Your task to perform on an android device: search for starred emails in the gmail app Image 0: 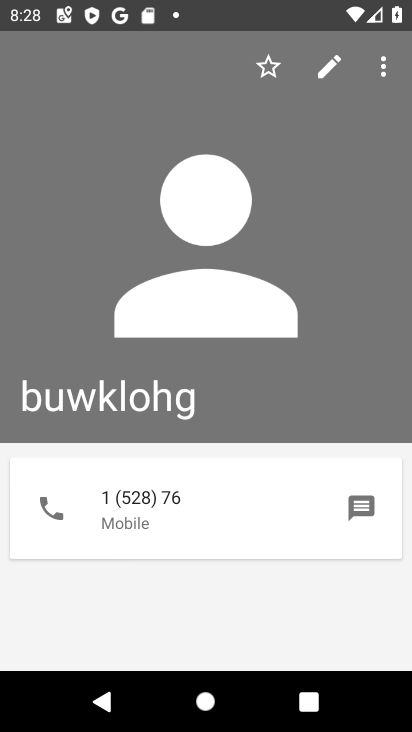
Step 0: press home button
Your task to perform on an android device: search for starred emails in the gmail app Image 1: 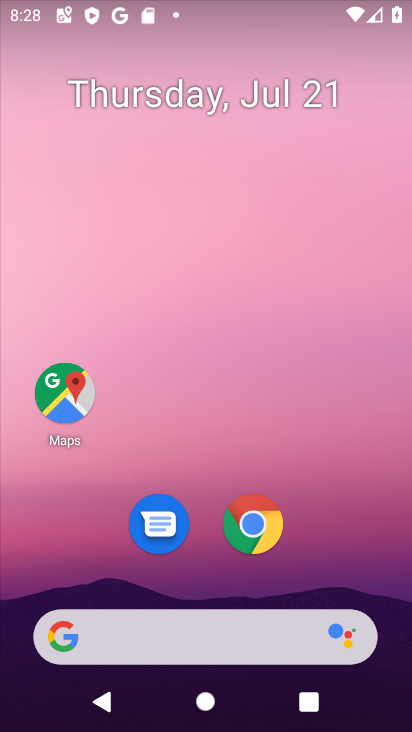
Step 1: drag from (211, 621) to (283, 112)
Your task to perform on an android device: search for starred emails in the gmail app Image 2: 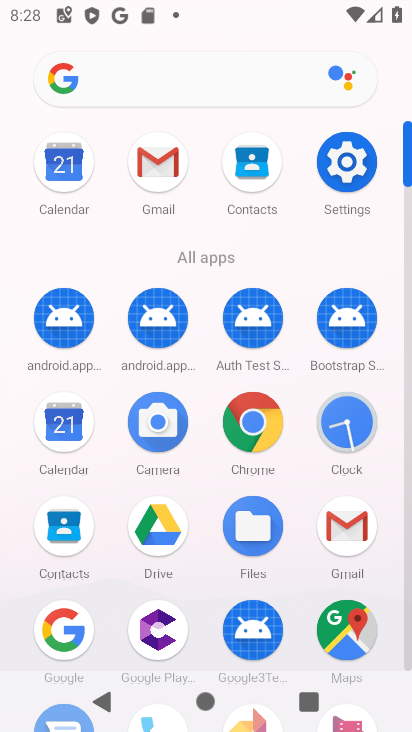
Step 2: click (148, 165)
Your task to perform on an android device: search for starred emails in the gmail app Image 3: 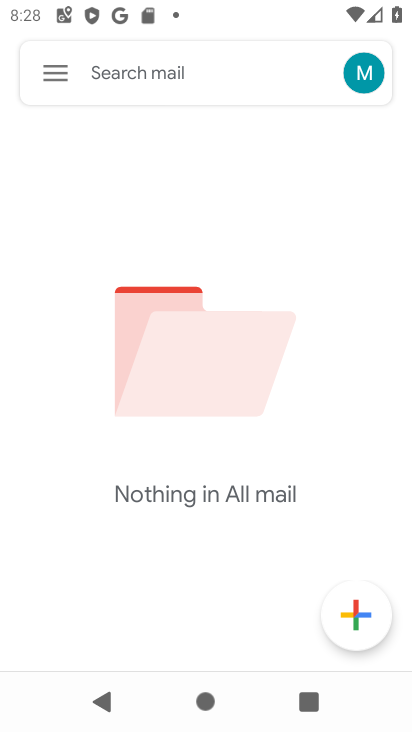
Step 3: click (48, 75)
Your task to perform on an android device: search for starred emails in the gmail app Image 4: 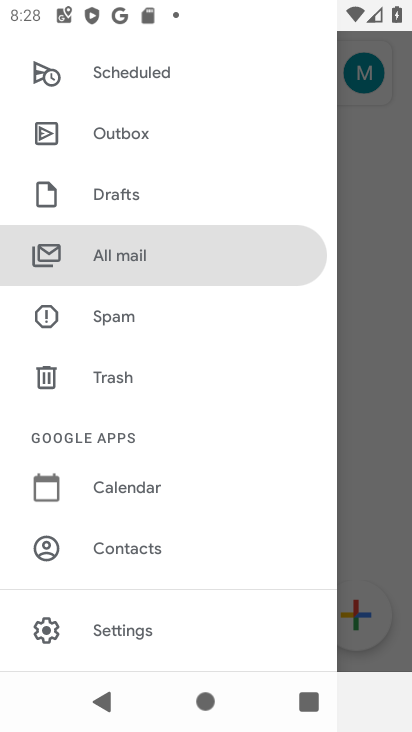
Step 4: drag from (224, 103) to (207, 482)
Your task to perform on an android device: search for starred emails in the gmail app Image 5: 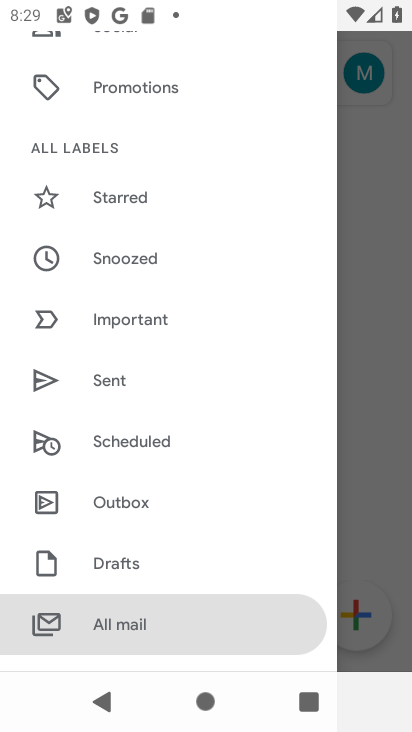
Step 5: click (140, 204)
Your task to perform on an android device: search for starred emails in the gmail app Image 6: 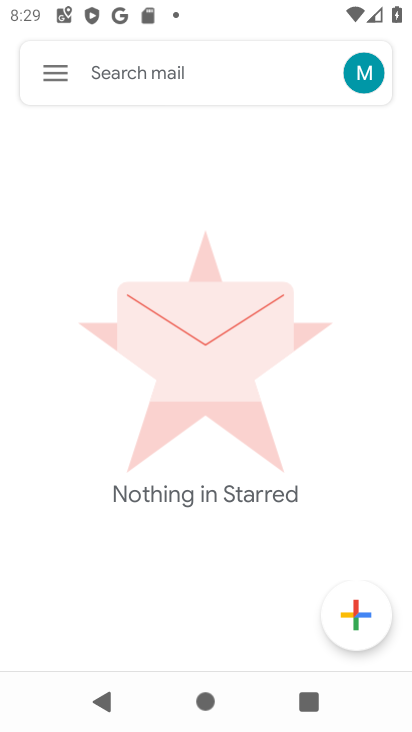
Step 6: task complete